Your task to perform on an android device: toggle translation in the chrome app Image 0: 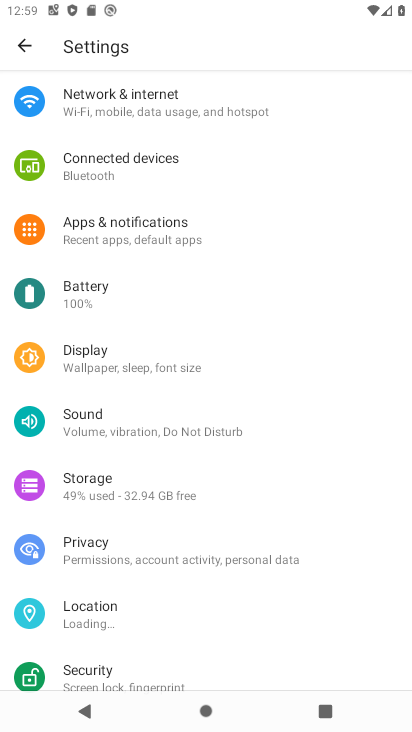
Step 0: press home button
Your task to perform on an android device: toggle translation in the chrome app Image 1: 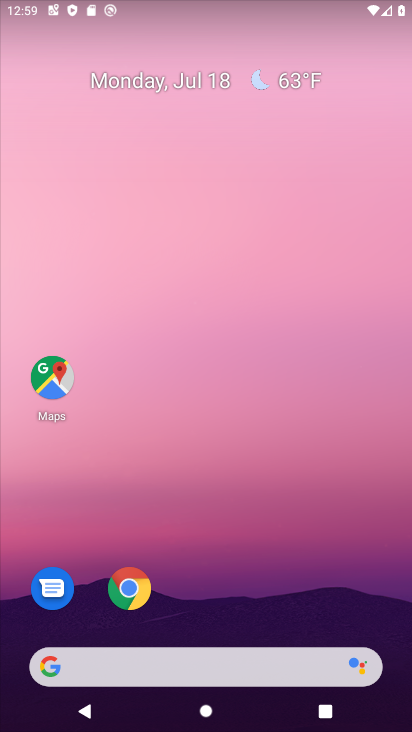
Step 1: click (135, 591)
Your task to perform on an android device: toggle translation in the chrome app Image 2: 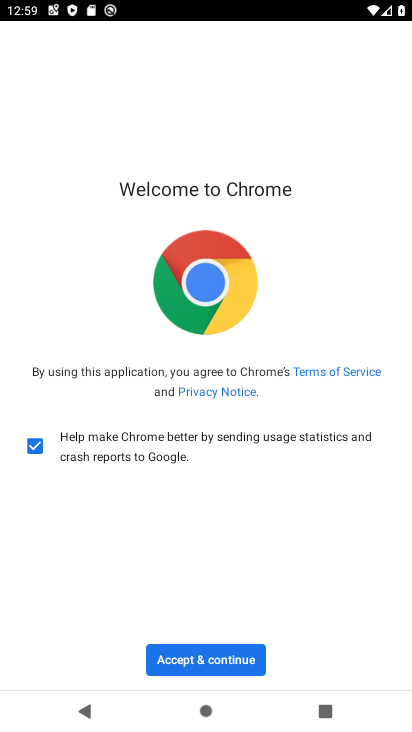
Step 2: click (219, 654)
Your task to perform on an android device: toggle translation in the chrome app Image 3: 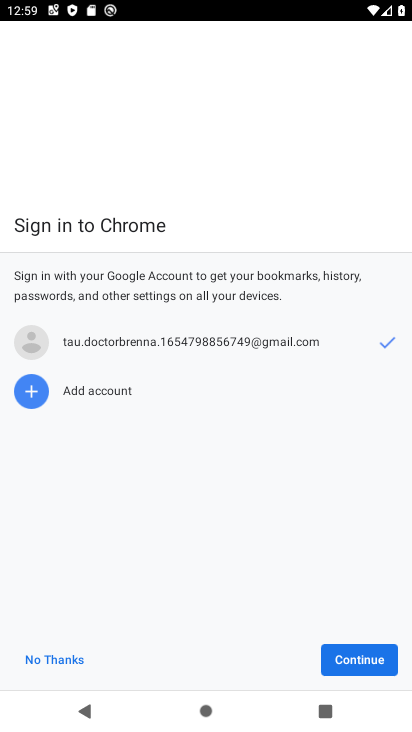
Step 3: click (356, 661)
Your task to perform on an android device: toggle translation in the chrome app Image 4: 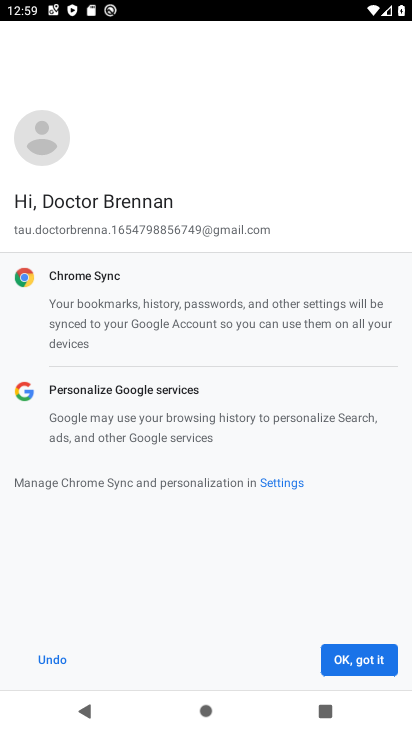
Step 4: click (350, 656)
Your task to perform on an android device: toggle translation in the chrome app Image 5: 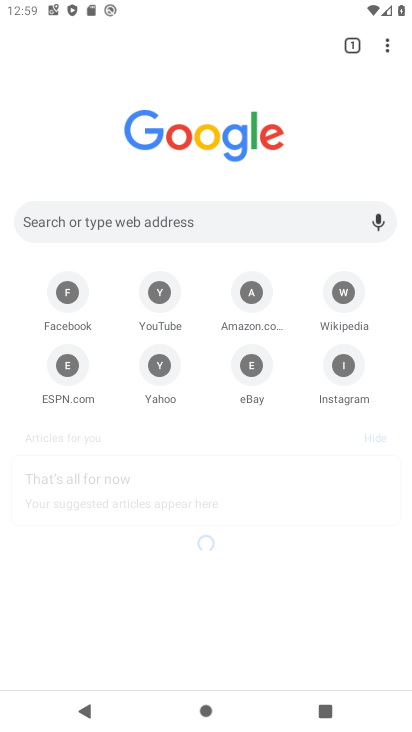
Step 5: click (386, 48)
Your task to perform on an android device: toggle translation in the chrome app Image 6: 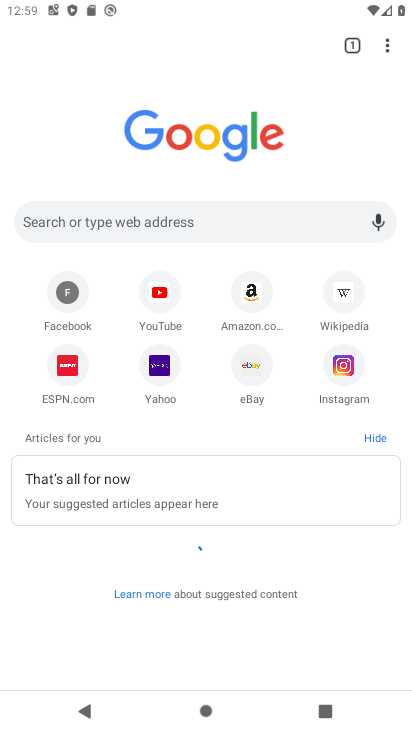
Step 6: click (388, 43)
Your task to perform on an android device: toggle translation in the chrome app Image 7: 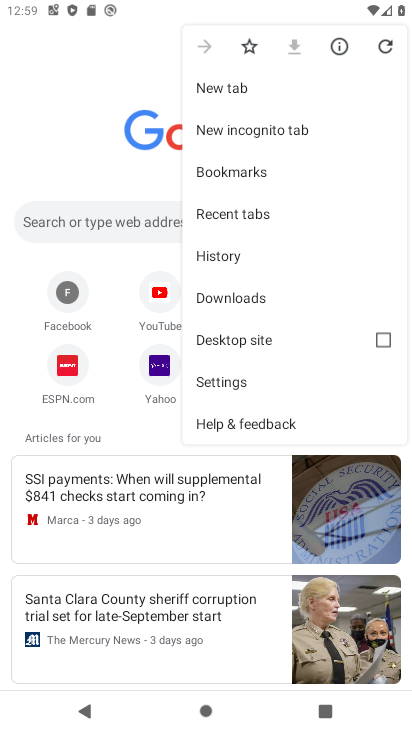
Step 7: click (224, 373)
Your task to perform on an android device: toggle translation in the chrome app Image 8: 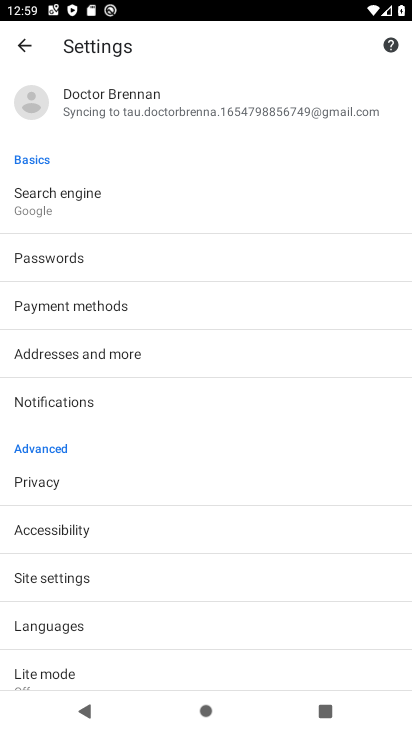
Step 8: click (69, 622)
Your task to perform on an android device: toggle translation in the chrome app Image 9: 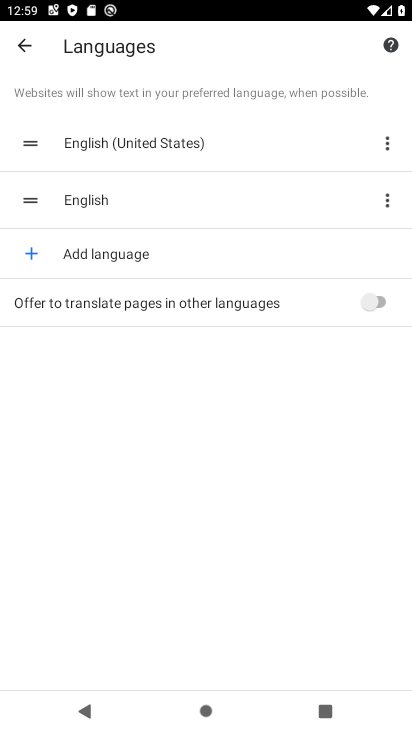
Step 9: click (373, 302)
Your task to perform on an android device: toggle translation in the chrome app Image 10: 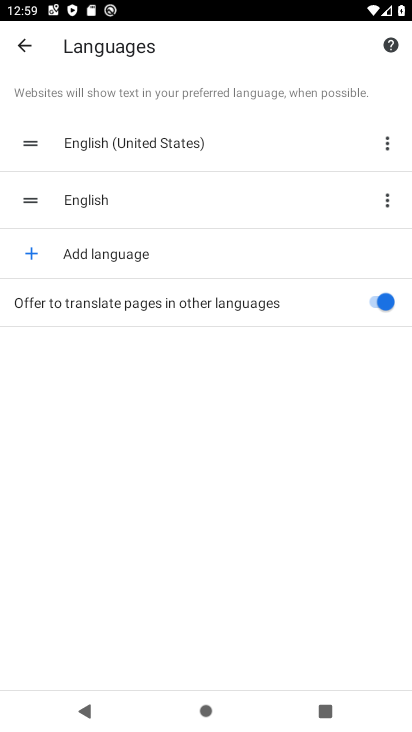
Step 10: task complete